Your task to perform on an android device: Go to ESPN.com Image 0: 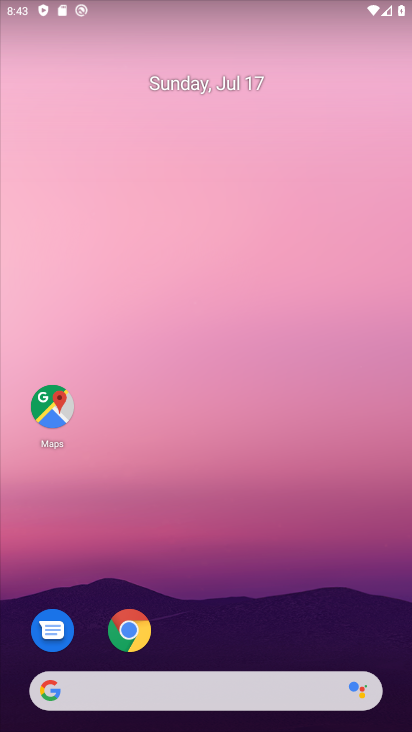
Step 0: click (145, 622)
Your task to perform on an android device: Go to ESPN.com Image 1: 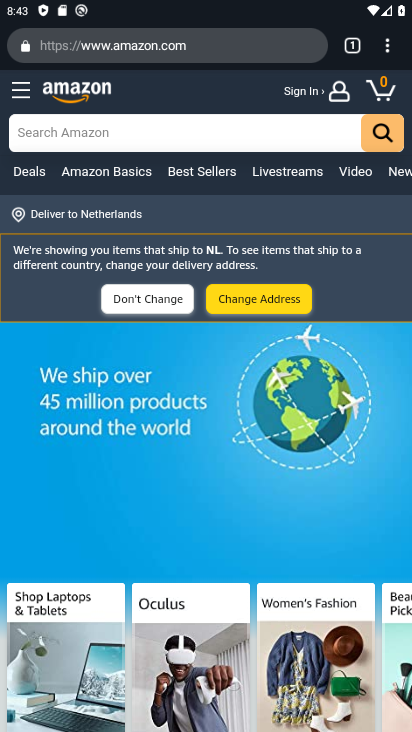
Step 1: click (400, 50)
Your task to perform on an android device: Go to ESPN.com Image 2: 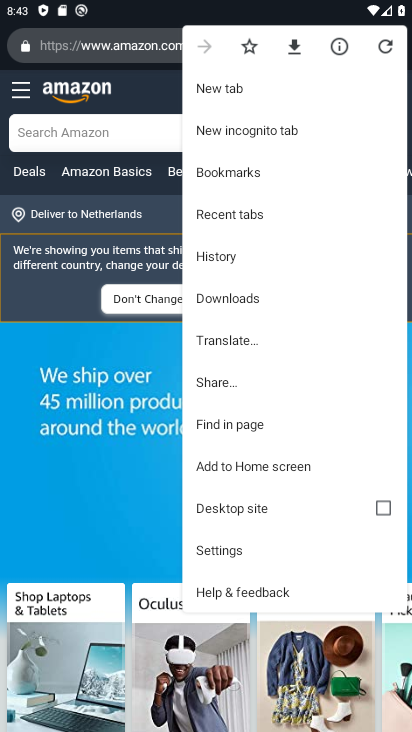
Step 2: click (225, 539)
Your task to perform on an android device: Go to ESPN.com Image 3: 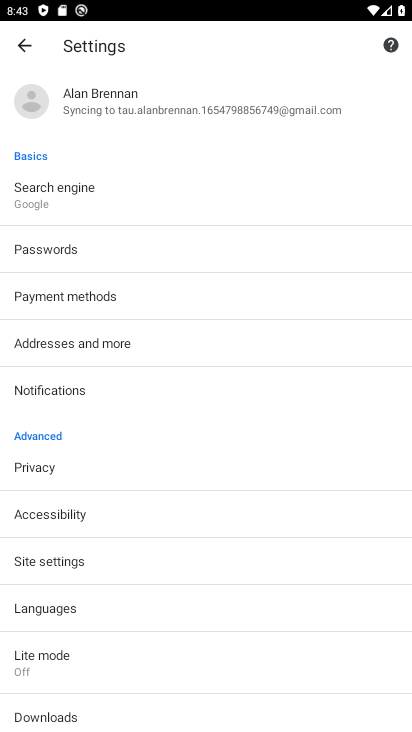
Step 3: click (23, 40)
Your task to perform on an android device: Go to ESPN.com Image 4: 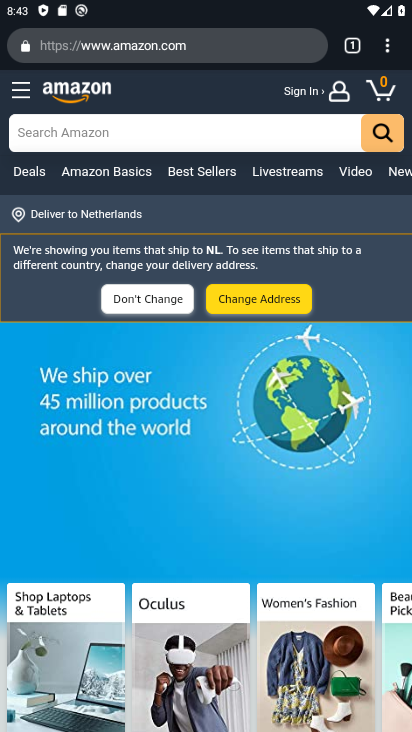
Step 4: click (194, 39)
Your task to perform on an android device: Go to ESPN.com Image 5: 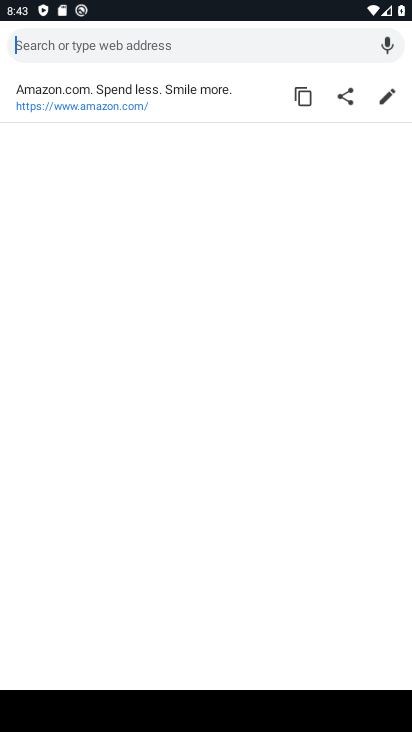
Step 5: type "espn.com"
Your task to perform on an android device: Go to ESPN.com Image 6: 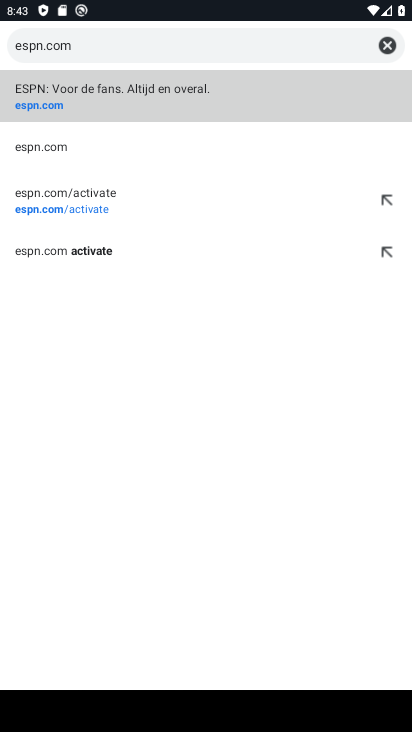
Step 6: click (116, 152)
Your task to perform on an android device: Go to ESPN.com Image 7: 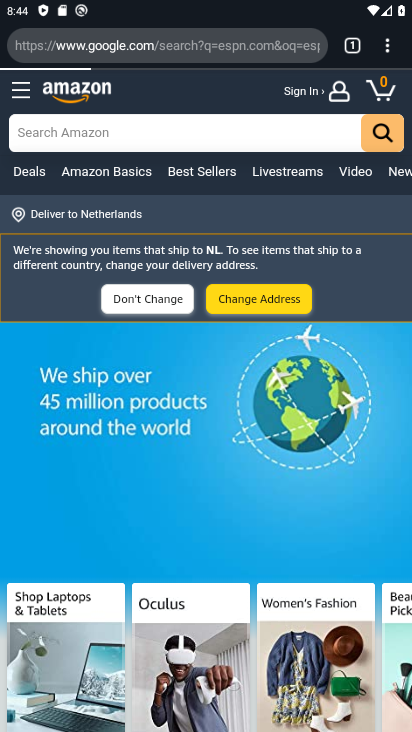
Step 7: task complete